Your task to perform on an android device: turn on bluetooth scan Image 0: 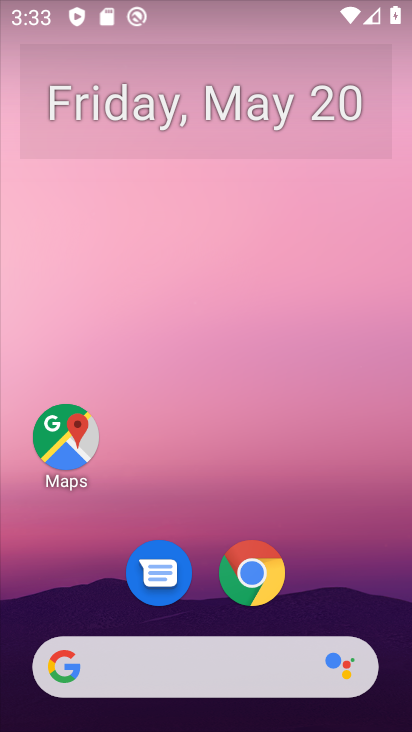
Step 0: drag from (390, 529) to (326, 148)
Your task to perform on an android device: turn on bluetooth scan Image 1: 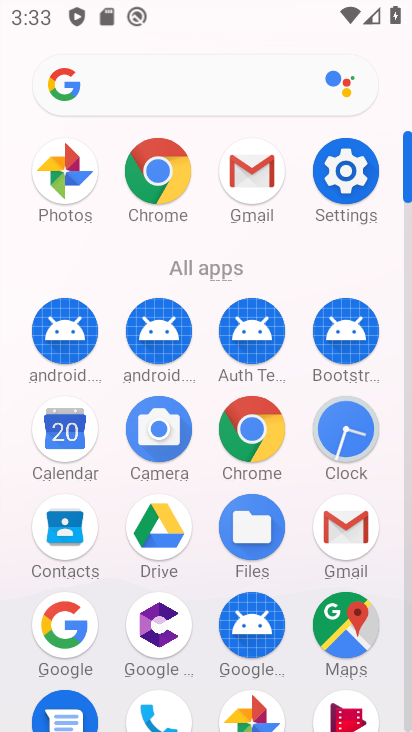
Step 1: click (333, 159)
Your task to perform on an android device: turn on bluetooth scan Image 2: 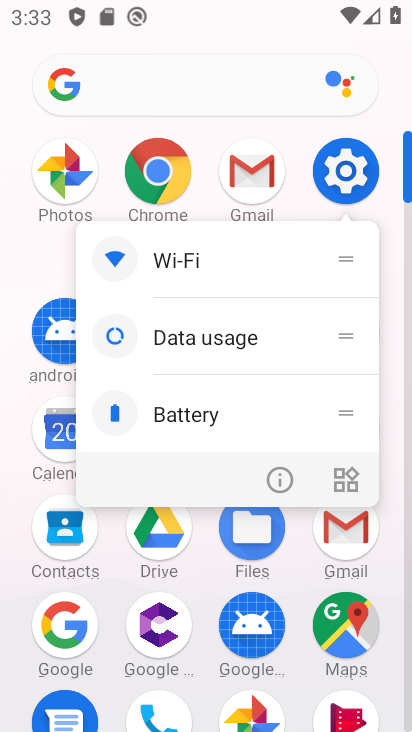
Step 2: click (337, 167)
Your task to perform on an android device: turn on bluetooth scan Image 3: 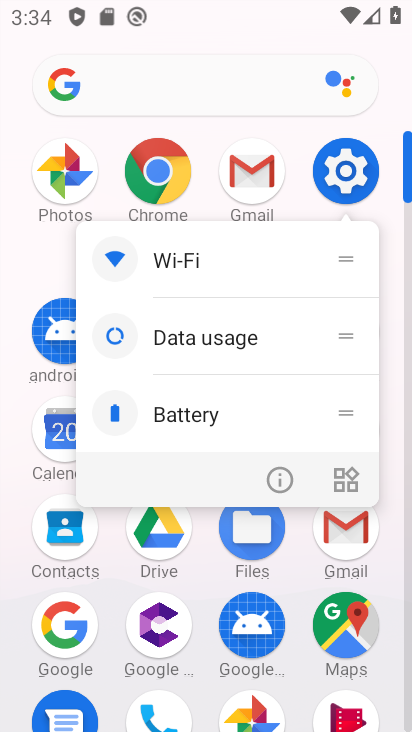
Step 3: click (341, 176)
Your task to perform on an android device: turn on bluetooth scan Image 4: 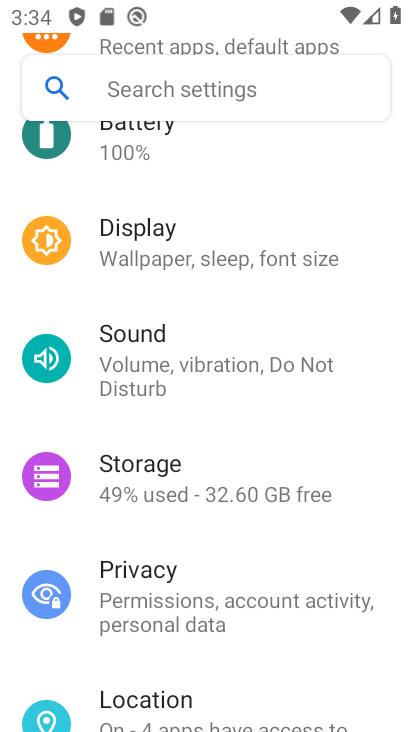
Step 4: drag from (301, 645) to (307, 248)
Your task to perform on an android device: turn on bluetooth scan Image 5: 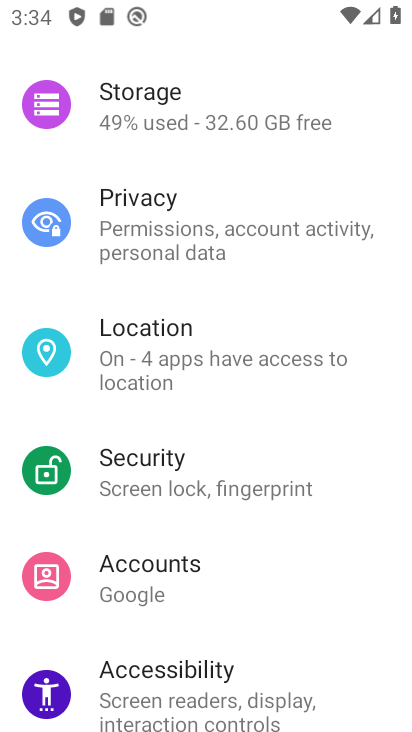
Step 5: drag from (265, 578) to (272, 200)
Your task to perform on an android device: turn on bluetooth scan Image 6: 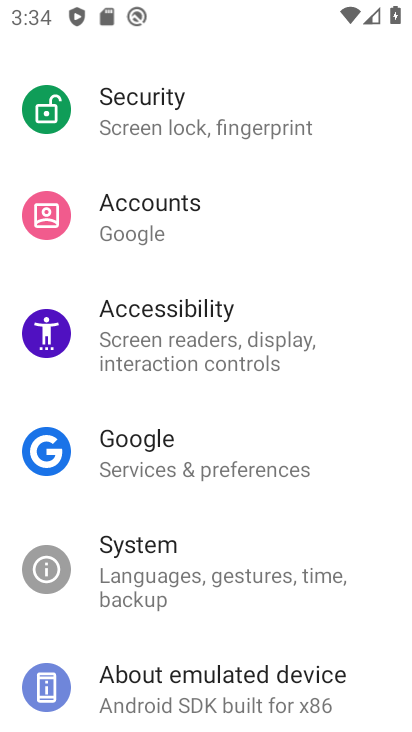
Step 6: drag from (272, 200) to (257, 516)
Your task to perform on an android device: turn on bluetooth scan Image 7: 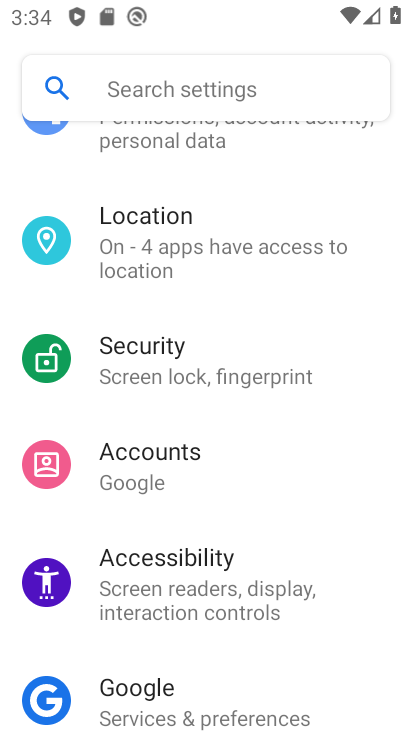
Step 7: drag from (243, 222) to (231, 595)
Your task to perform on an android device: turn on bluetooth scan Image 8: 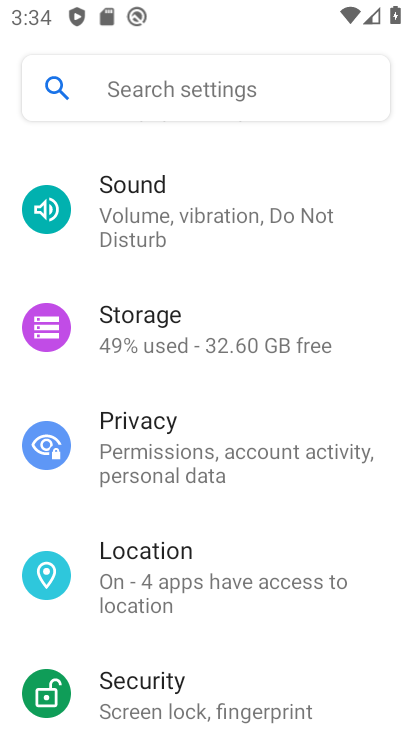
Step 8: click (207, 576)
Your task to perform on an android device: turn on bluetooth scan Image 9: 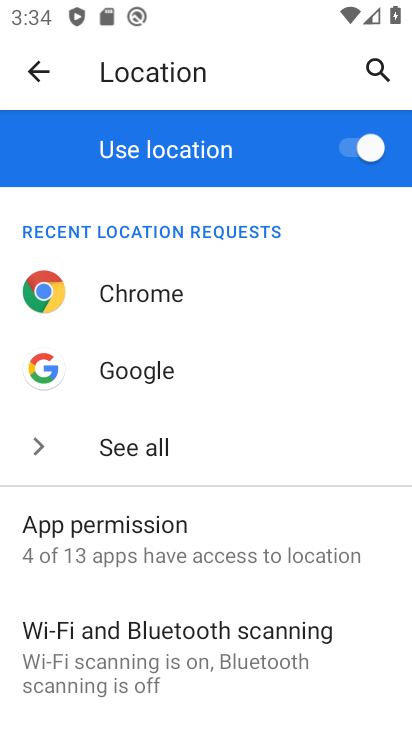
Step 9: click (211, 663)
Your task to perform on an android device: turn on bluetooth scan Image 10: 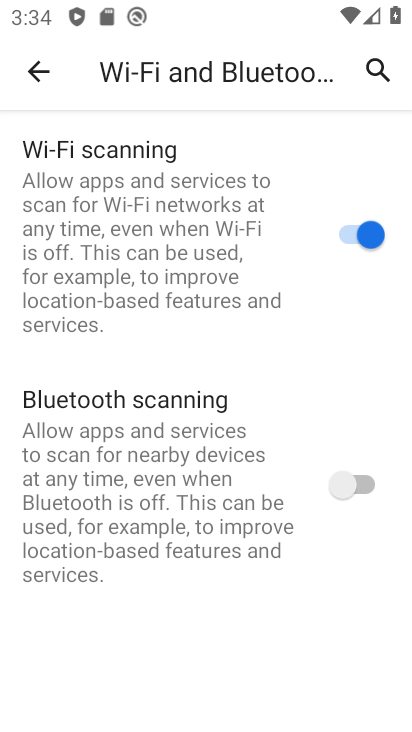
Step 10: click (354, 492)
Your task to perform on an android device: turn on bluetooth scan Image 11: 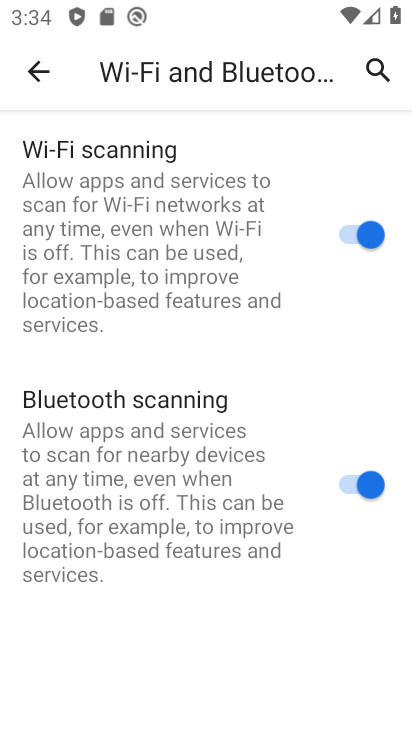
Step 11: task complete